Your task to perform on an android device: open app "Adobe Express: Graphic Design" Image 0: 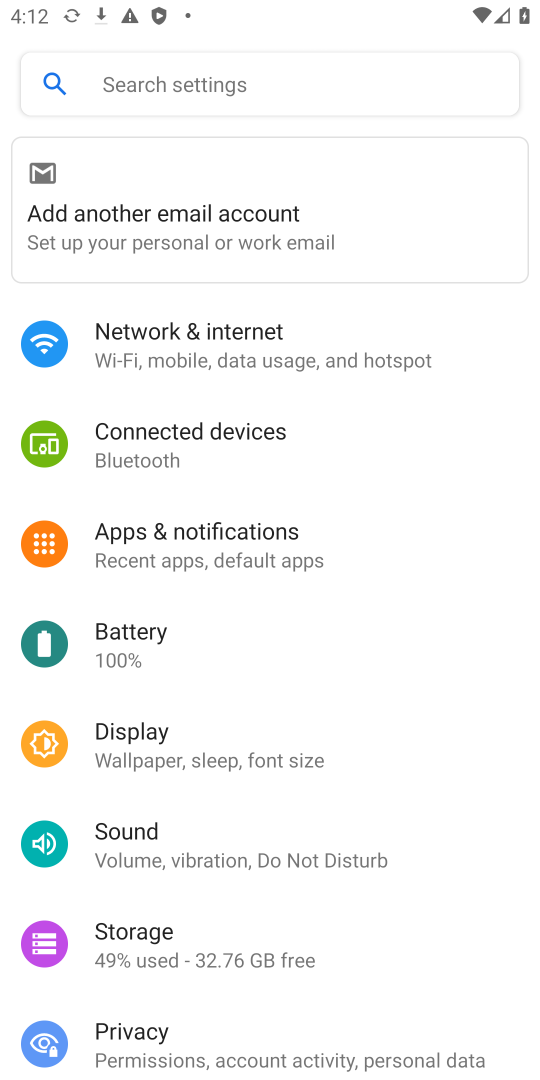
Step 0: press home button
Your task to perform on an android device: open app "Adobe Express: Graphic Design" Image 1: 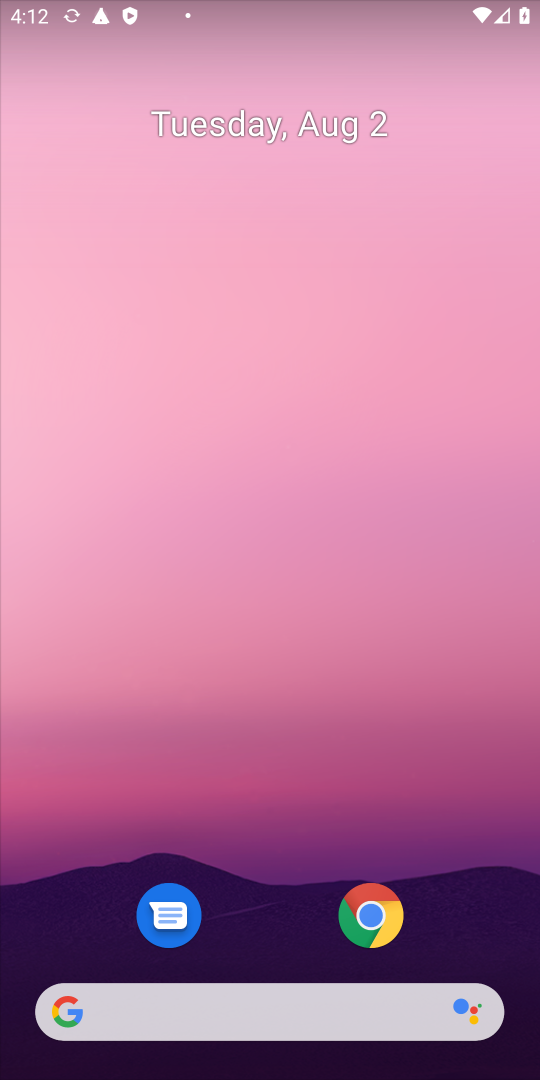
Step 1: drag from (283, 877) to (282, 169)
Your task to perform on an android device: open app "Adobe Express: Graphic Design" Image 2: 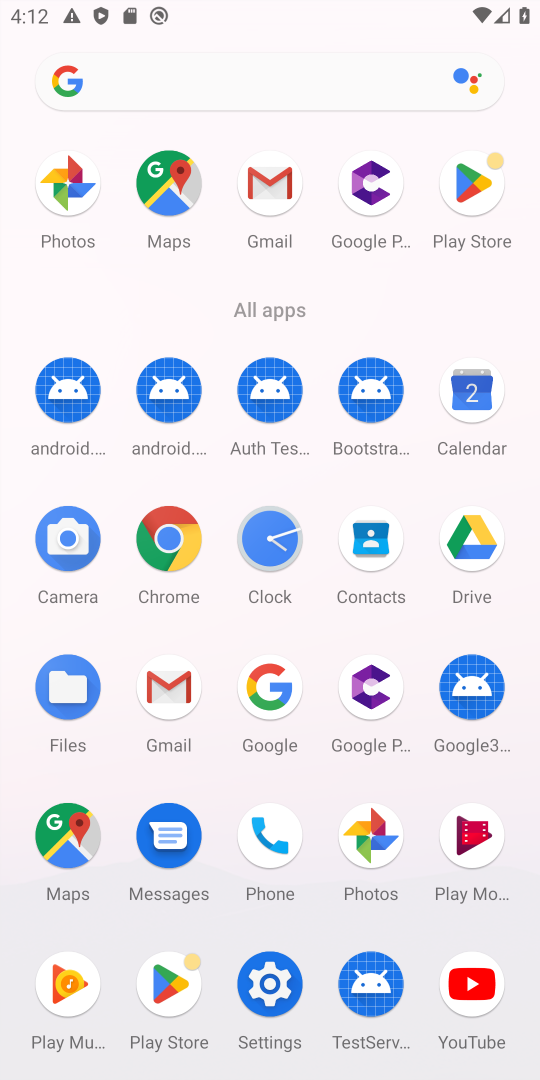
Step 2: click (467, 175)
Your task to perform on an android device: open app "Adobe Express: Graphic Design" Image 3: 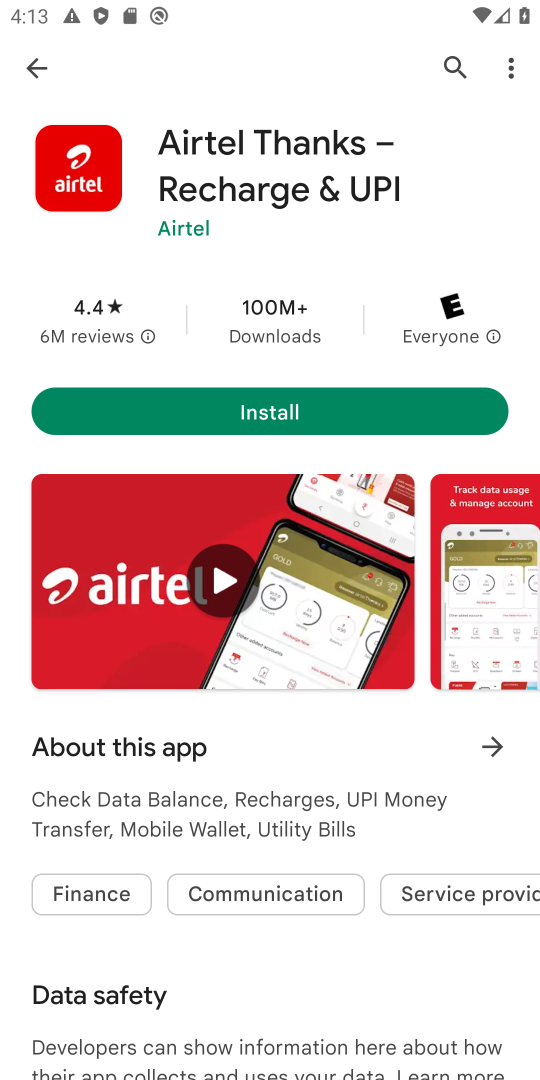
Step 3: click (458, 72)
Your task to perform on an android device: open app "Adobe Express: Graphic Design" Image 4: 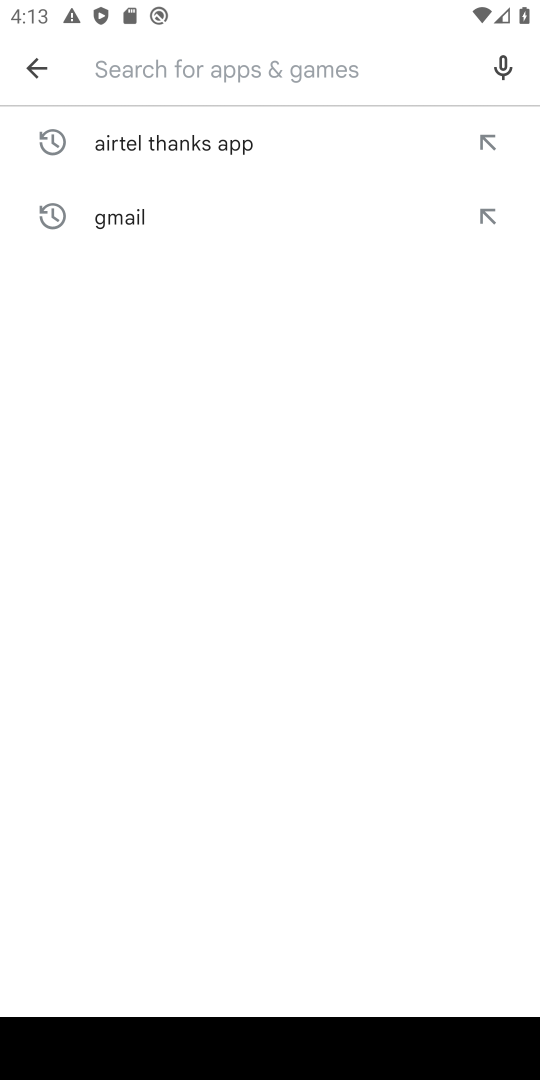
Step 4: type "adobe express: graphic design"
Your task to perform on an android device: open app "Adobe Express: Graphic Design" Image 5: 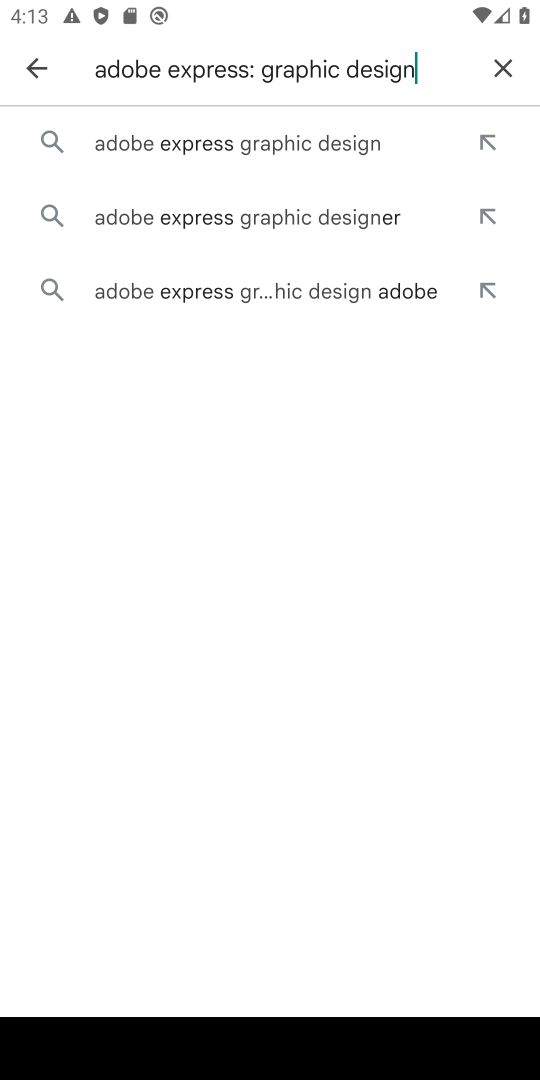
Step 5: click (208, 149)
Your task to perform on an android device: open app "Adobe Express: Graphic Design" Image 6: 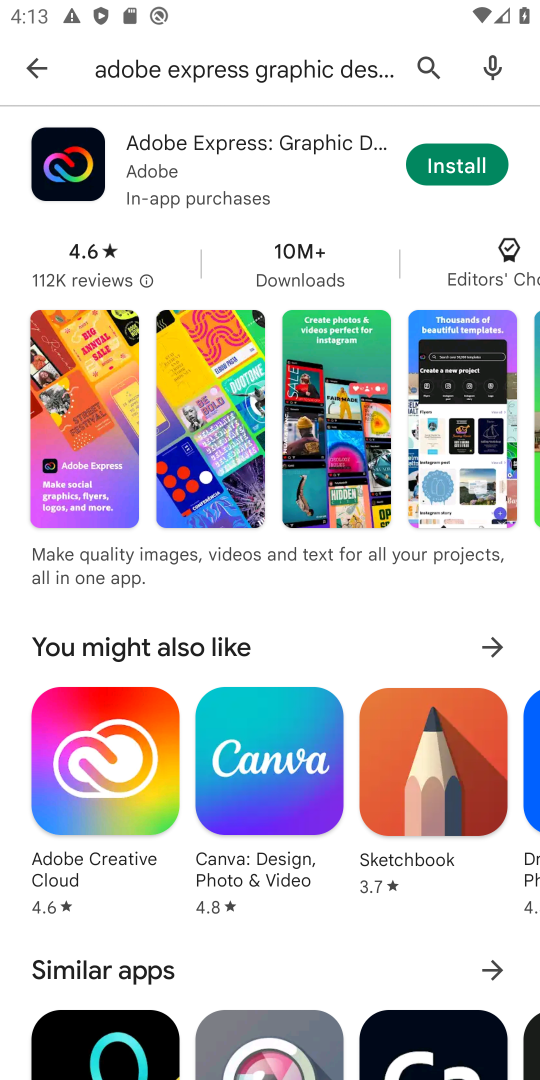
Step 6: click (251, 150)
Your task to perform on an android device: open app "Adobe Express: Graphic Design" Image 7: 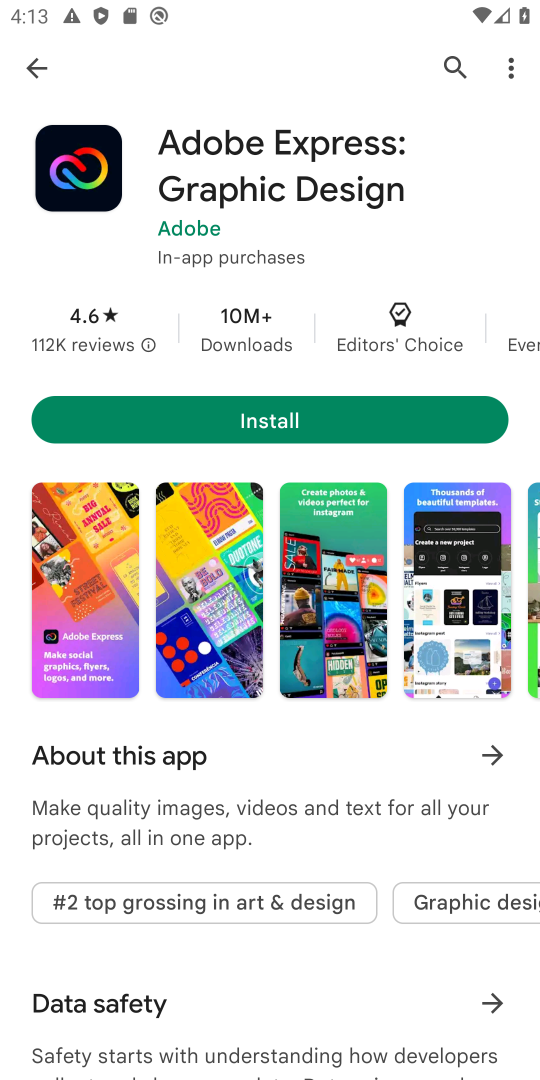
Step 7: task complete